Your task to perform on an android device: change your default location settings in chrome Image 0: 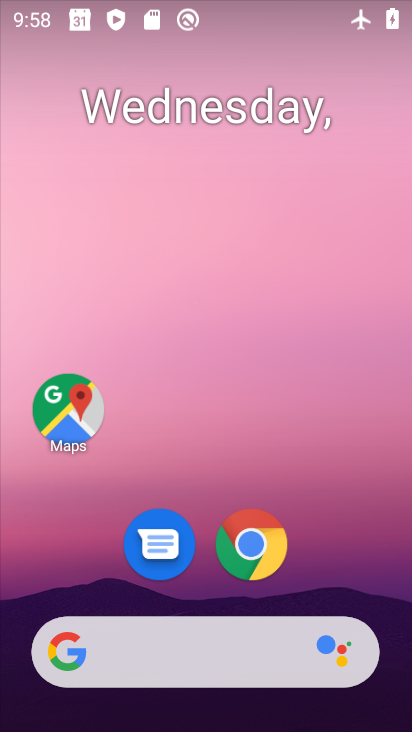
Step 0: click (253, 543)
Your task to perform on an android device: change your default location settings in chrome Image 1: 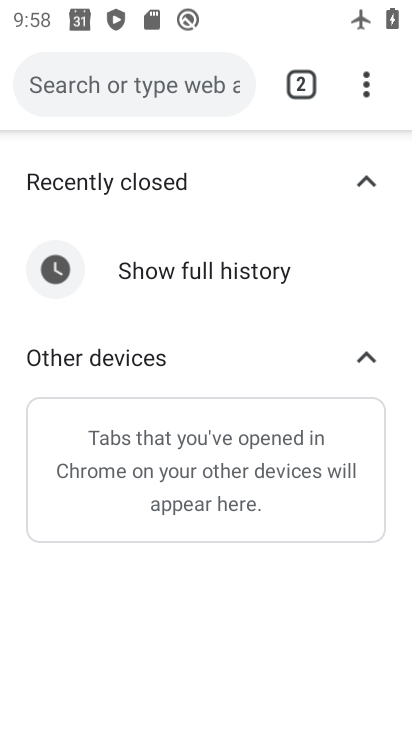
Step 1: click (360, 88)
Your task to perform on an android device: change your default location settings in chrome Image 2: 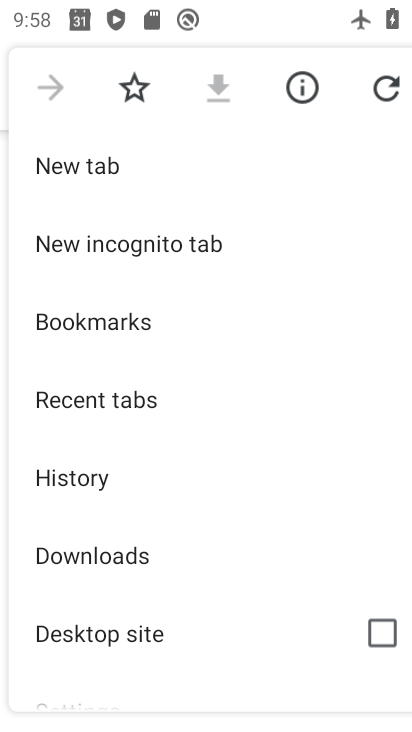
Step 2: drag from (121, 585) to (128, 181)
Your task to perform on an android device: change your default location settings in chrome Image 3: 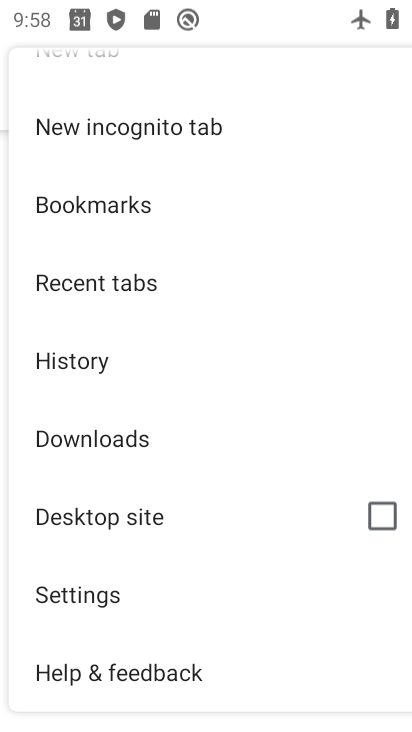
Step 3: click (58, 584)
Your task to perform on an android device: change your default location settings in chrome Image 4: 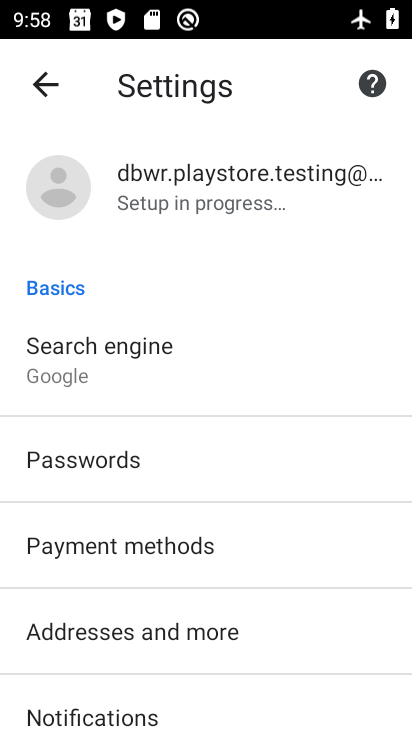
Step 4: drag from (80, 626) to (97, 321)
Your task to perform on an android device: change your default location settings in chrome Image 5: 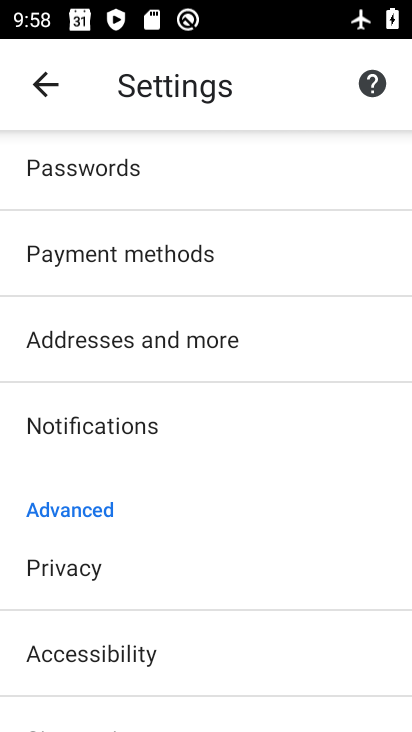
Step 5: drag from (121, 645) to (186, 373)
Your task to perform on an android device: change your default location settings in chrome Image 6: 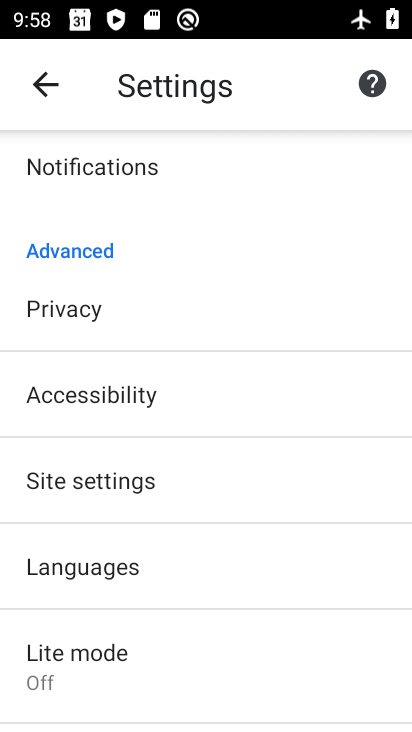
Step 6: click (174, 486)
Your task to perform on an android device: change your default location settings in chrome Image 7: 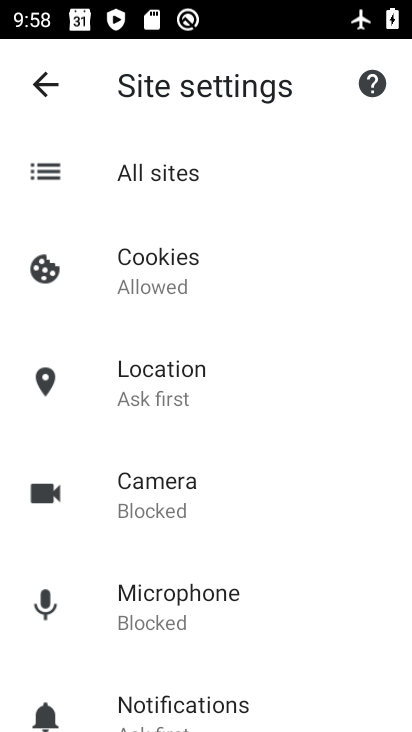
Step 7: drag from (185, 641) to (171, 549)
Your task to perform on an android device: change your default location settings in chrome Image 8: 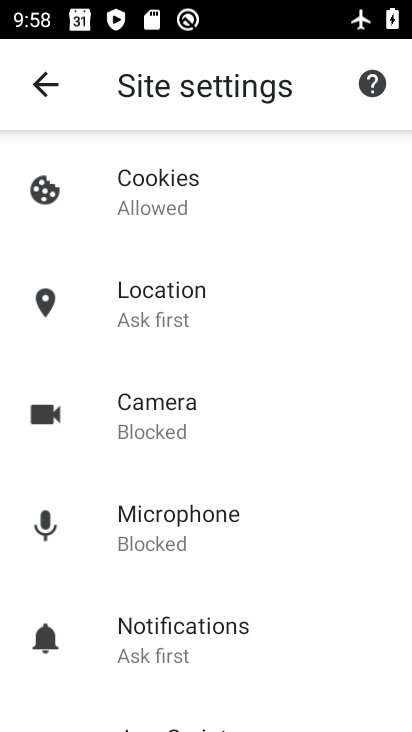
Step 8: click (262, 293)
Your task to perform on an android device: change your default location settings in chrome Image 9: 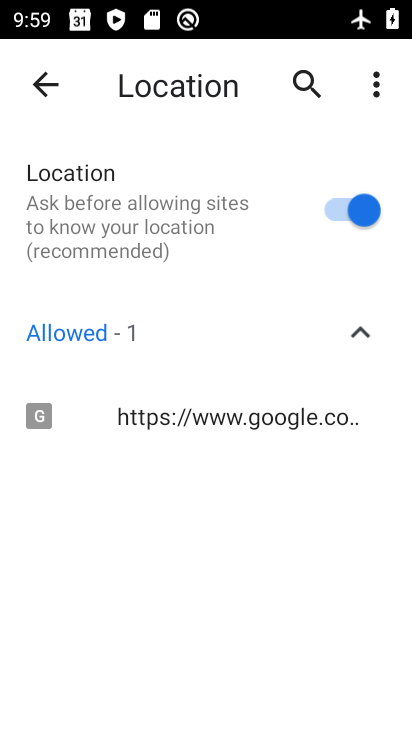
Step 9: click (354, 201)
Your task to perform on an android device: change your default location settings in chrome Image 10: 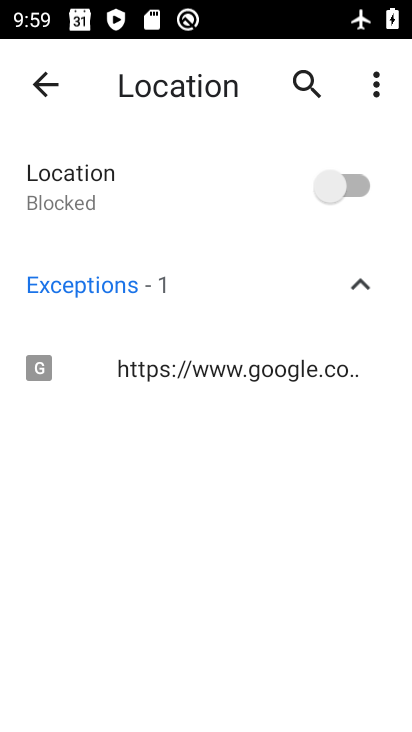
Step 10: task complete